Your task to perform on an android device: see sites visited before in the chrome app Image 0: 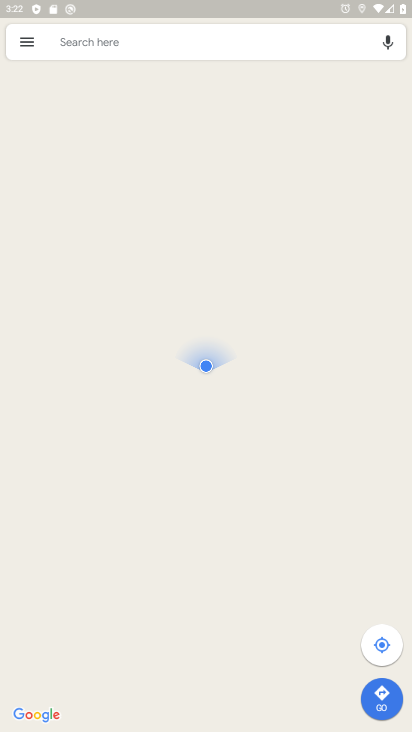
Step 0: press home button
Your task to perform on an android device: see sites visited before in the chrome app Image 1: 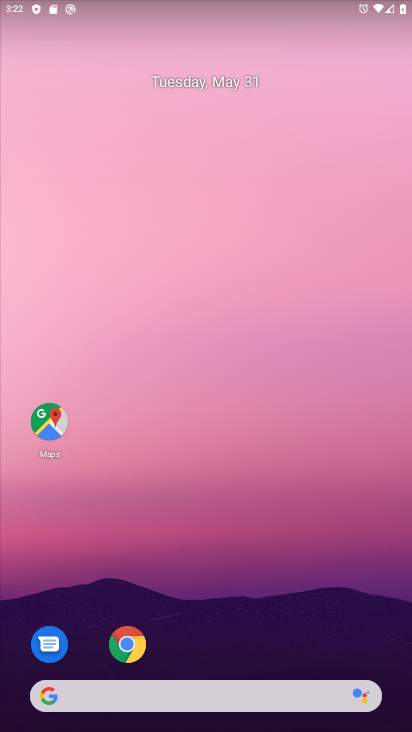
Step 1: drag from (255, 609) to (292, 291)
Your task to perform on an android device: see sites visited before in the chrome app Image 2: 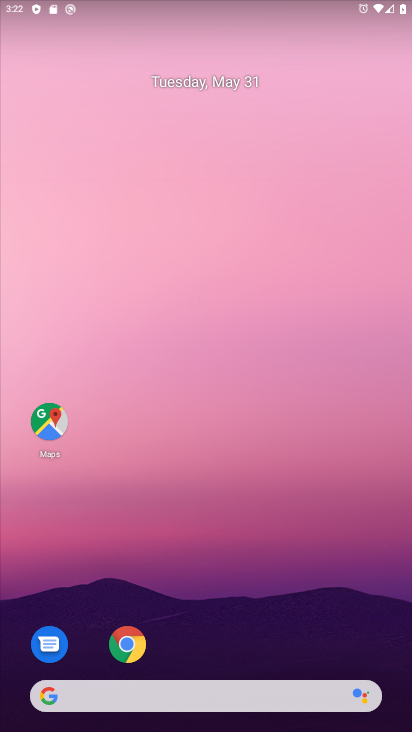
Step 2: click (117, 653)
Your task to perform on an android device: see sites visited before in the chrome app Image 3: 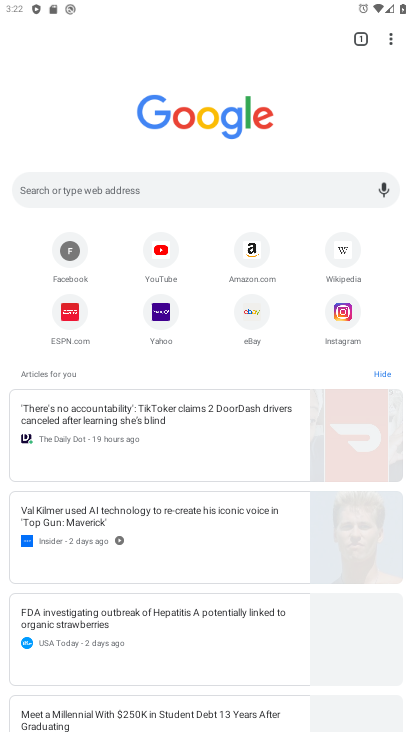
Step 3: click (117, 653)
Your task to perform on an android device: see sites visited before in the chrome app Image 4: 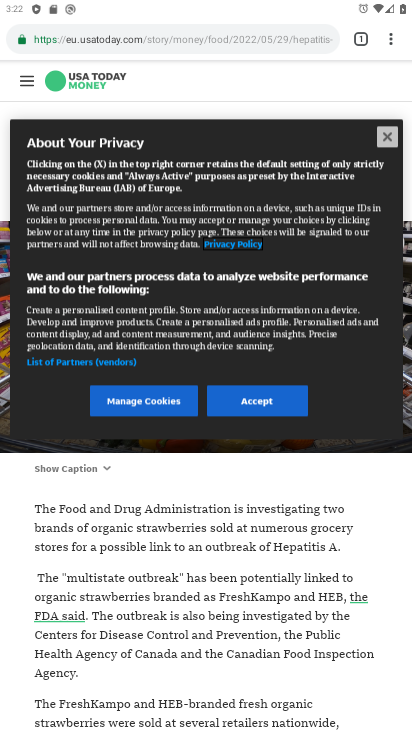
Step 4: click (397, 31)
Your task to perform on an android device: see sites visited before in the chrome app Image 5: 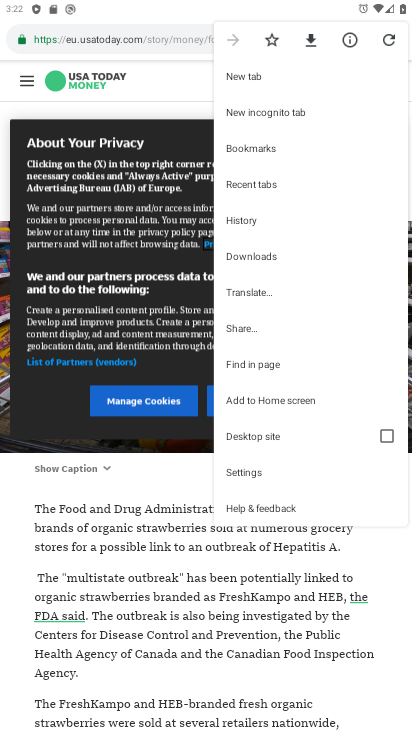
Step 5: click (249, 218)
Your task to perform on an android device: see sites visited before in the chrome app Image 6: 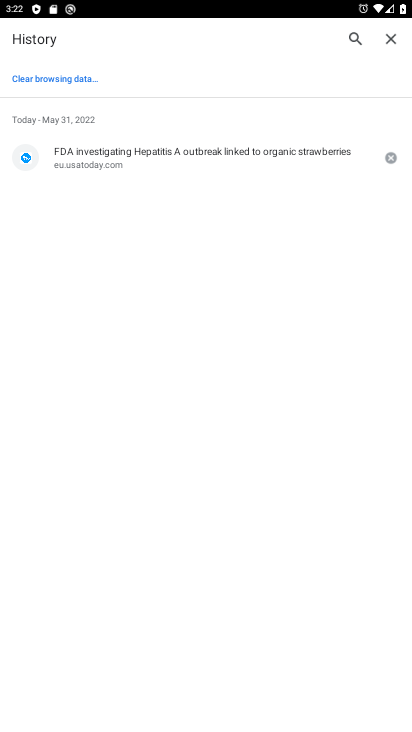
Step 6: task complete